Your task to perform on an android device: change the clock display to show seconds Image 0: 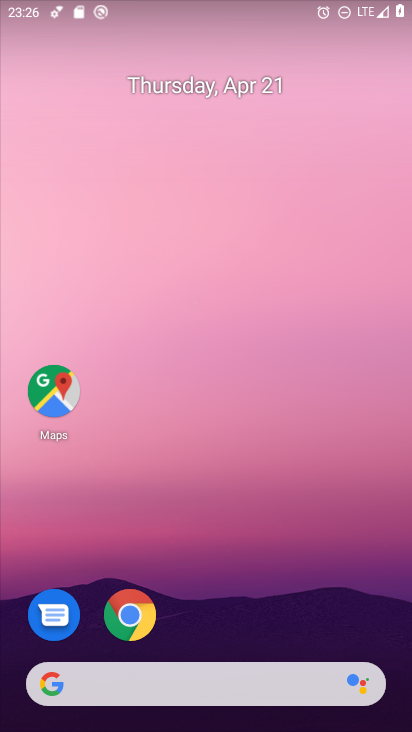
Step 0: drag from (207, 634) to (235, 85)
Your task to perform on an android device: change the clock display to show seconds Image 1: 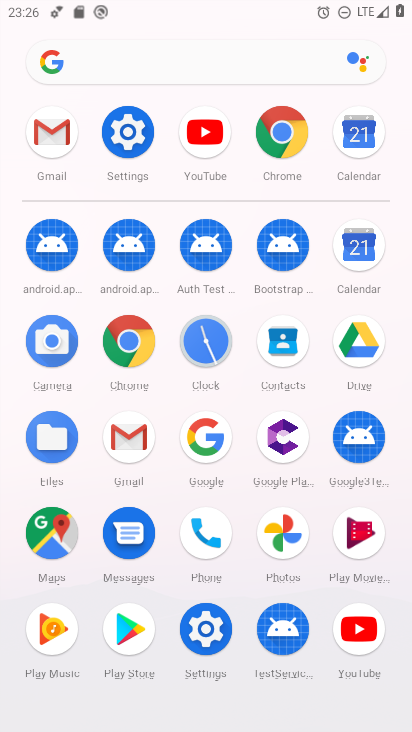
Step 1: click (203, 334)
Your task to perform on an android device: change the clock display to show seconds Image 2: 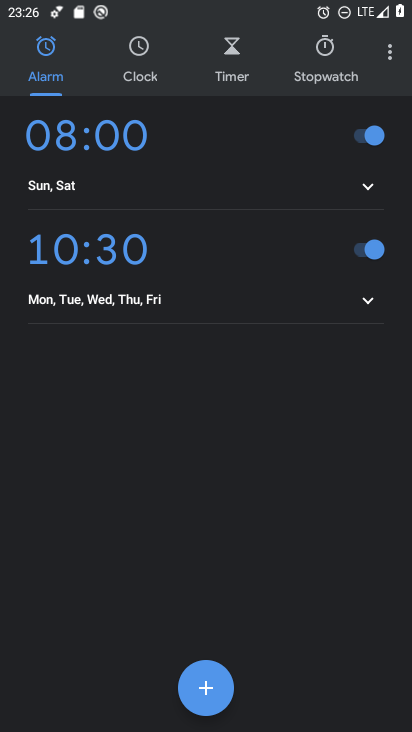
Step 2: click (390, 51)
Your task to perform on an android device: change the clock display to show seconds Image 3: 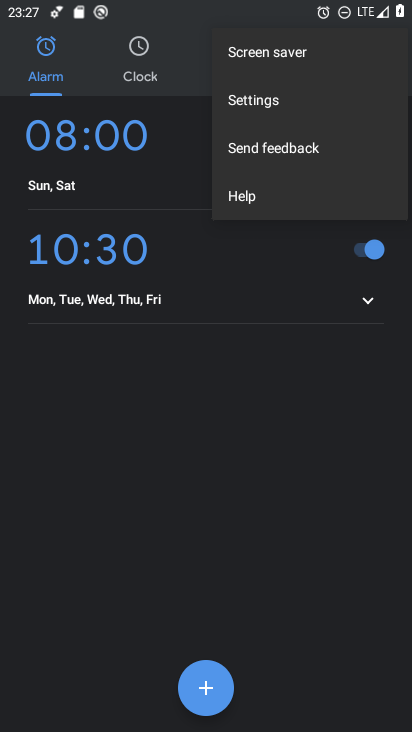
Step 3: click (289, 99)
Your task to perform on an android device: change the clock display to show seconds Image 4: 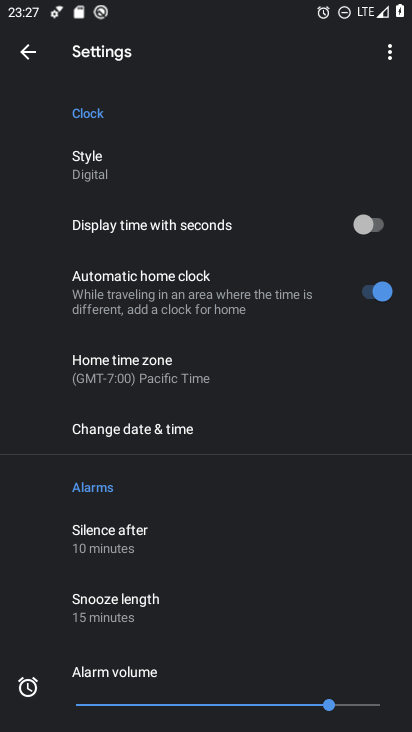
Step 4: click (377, 221)
Your task to perform on an android device: change the clock display to show seconds Image 5: 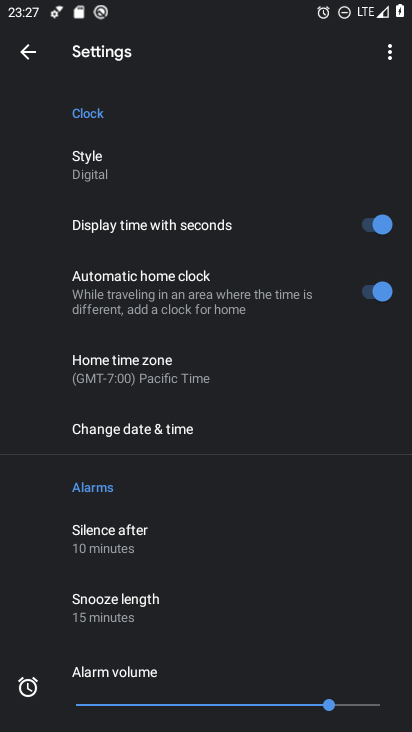
Step 5: task complete